Your task to perform on an android device: Go to sound settings Image 0: 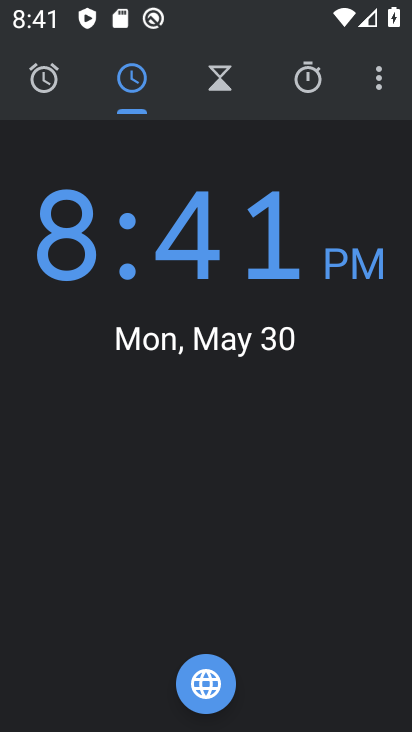
Step 0: press home button
Your task to perform on an android device: Go to sound settings Image 1: 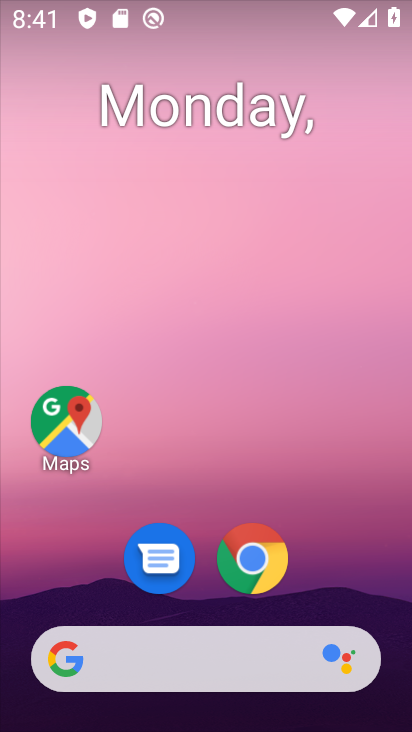
Step 1: drag from (349, 589) to (302, 116)
Your task to perform on an android device: Go to sound settings Image 2: 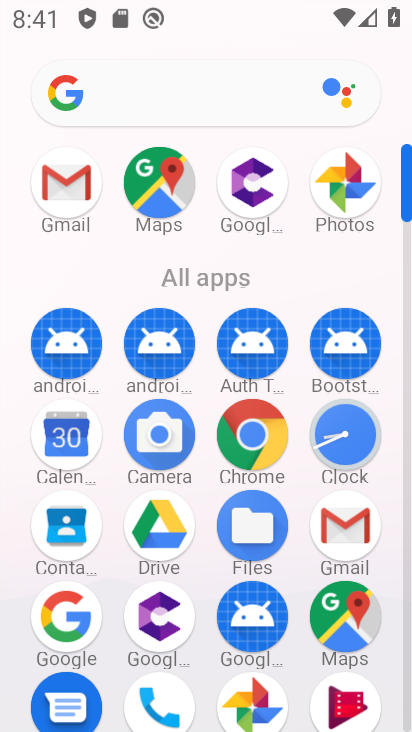
Step 2: drag from (306, 296) to (299, 107)
Your task to perform on an android device: Go to sound settings Image 3: 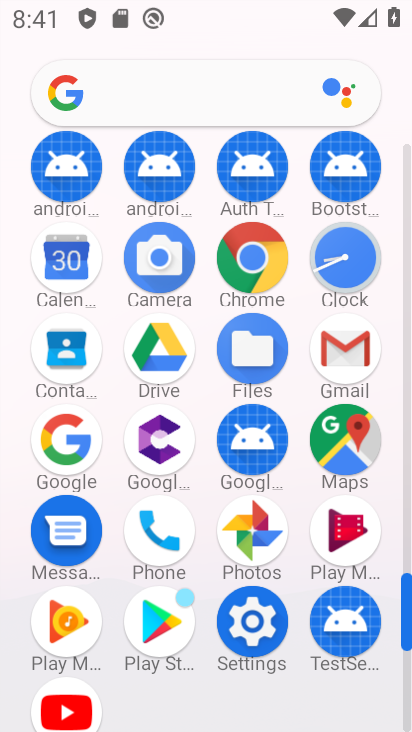
Step 3: click (261, 620)
Your task to perform on an android device: Go to sound settings Image 4: 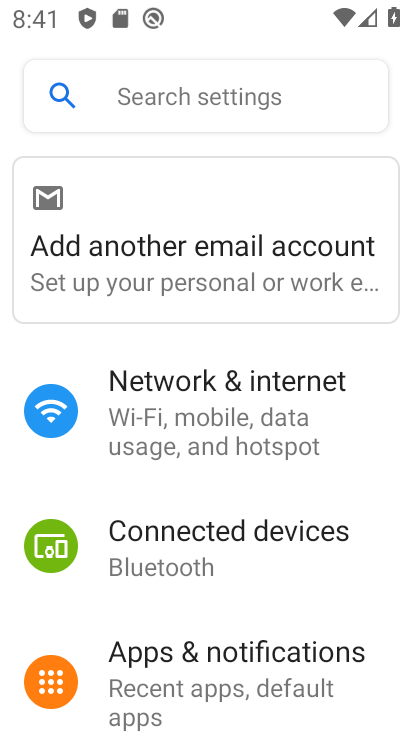
Step 4: drag from (261, 603) to (257, 196)
Your task to perform on an android device: Go to sound settings Image 5: 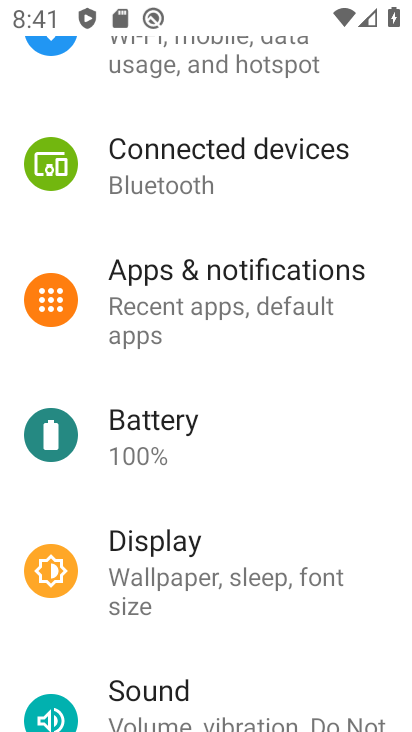
Step 5: drag from (290, 617) to (295, 215)
Your task to perform on an android device: Go to sound settings Image 6: 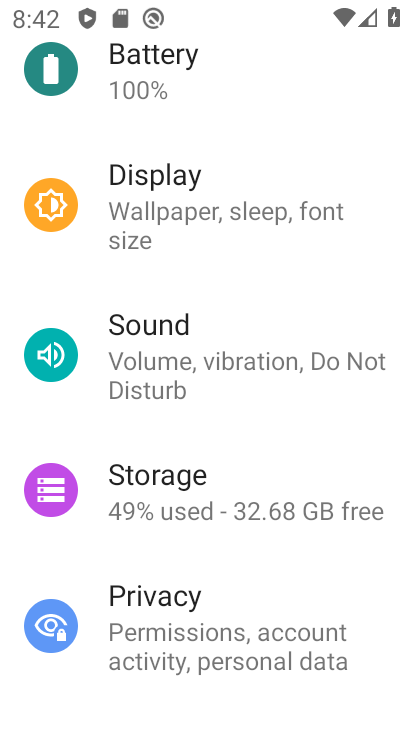
Step 6: click (150, 336)
Your task to perform on an android device: Go to sound settings Image 7: 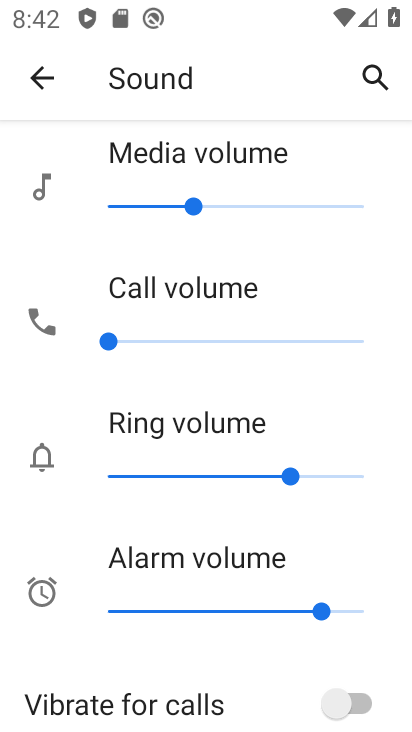
Step 7: task complete